Your task to perform on an android device: create a new album in the google photos Image 0: 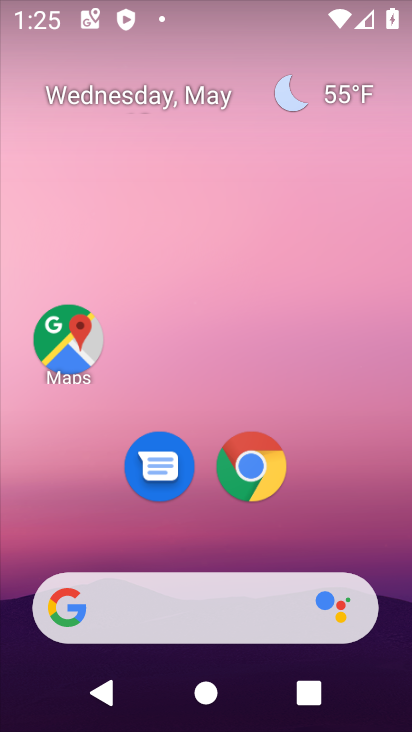
Step 0: drag from (304, 545) to (240, 5)
Your task to perform on an android device: create a new album in the google photos Image 1: 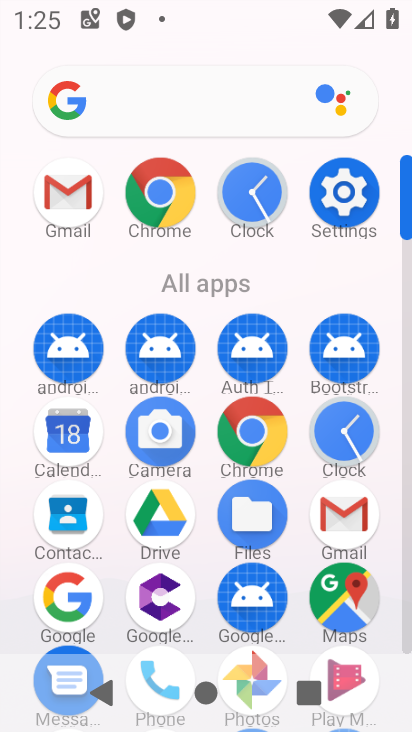
Step 1: drag from (283, 575) to (369, 299)
Your task to perform on an android device: create a new album in the google photos Image 2: 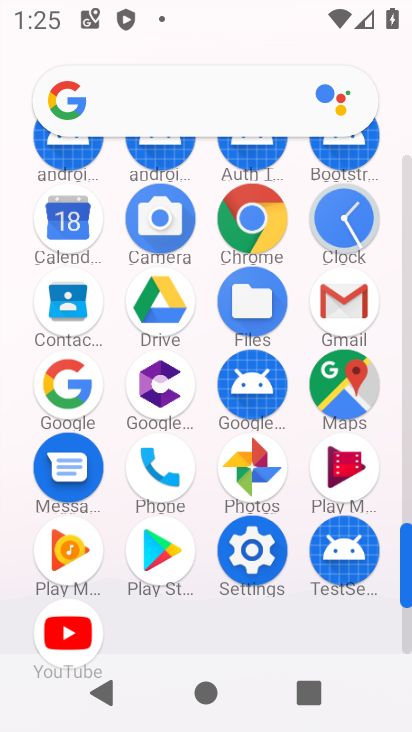
Step 2: click (251, 473)
Your task to perform on an android device: create a new album in the google photos Image 3: 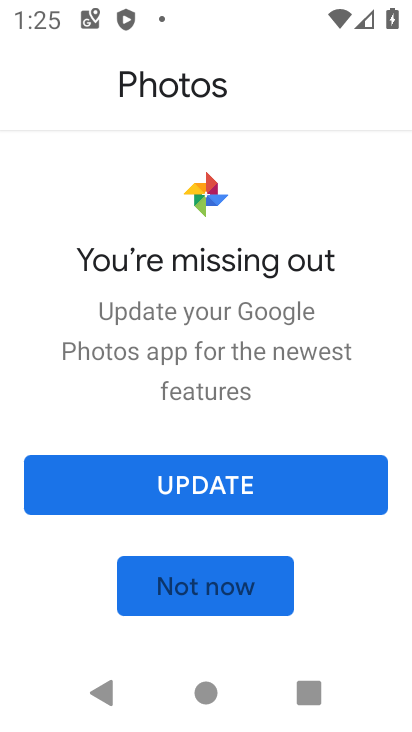
Step 3: click (230, 485)
Your task to perform on an android device: create a new album in the google photos Image 4: 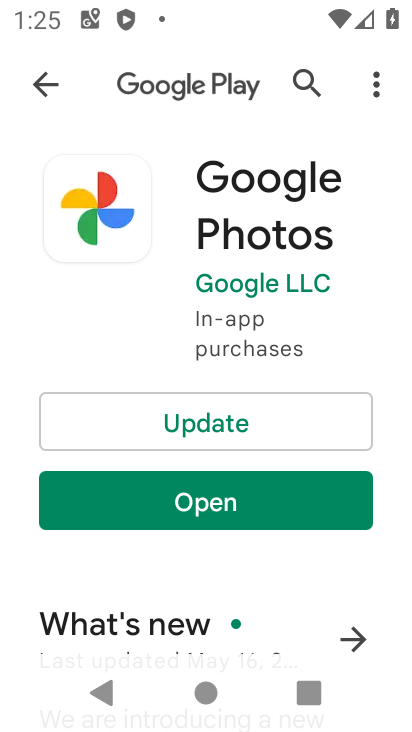
Step 4: click (235, 421)
Your task to perform on an android device: create a new album in the google photos Image 5: 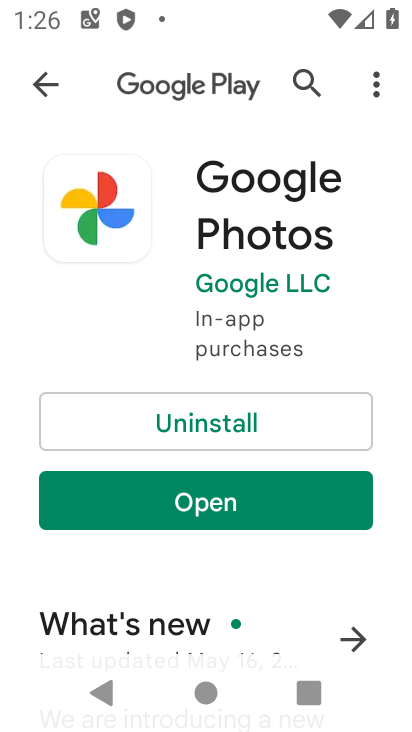
Step 5: click (321, 493)
Your task to perform on an android device: create a new album in the google photos Image 6: 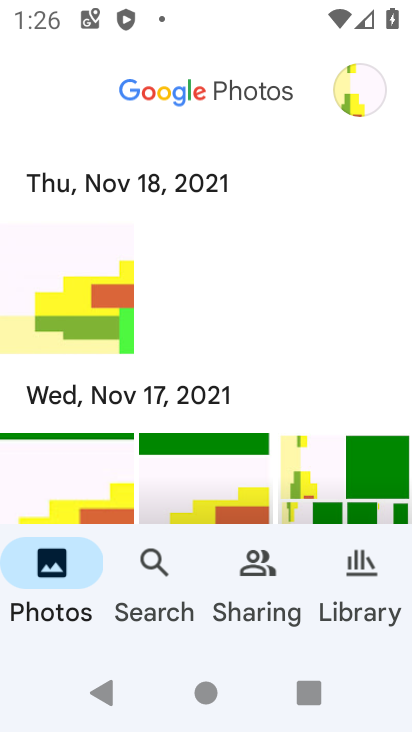
Step 6: click (339, 573)
Your task to perform on an android device: create a new album in the google photos Image 7: 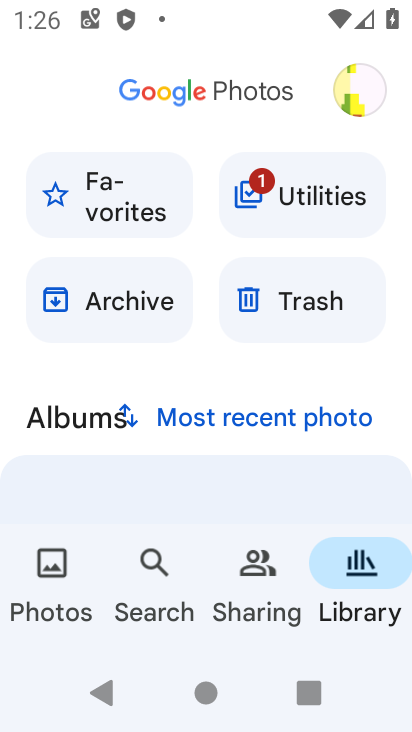
Step 7: drag from (150, 392) to (172, 42)
Your task to perform on an android device: create a new album in the google photos Image 8: 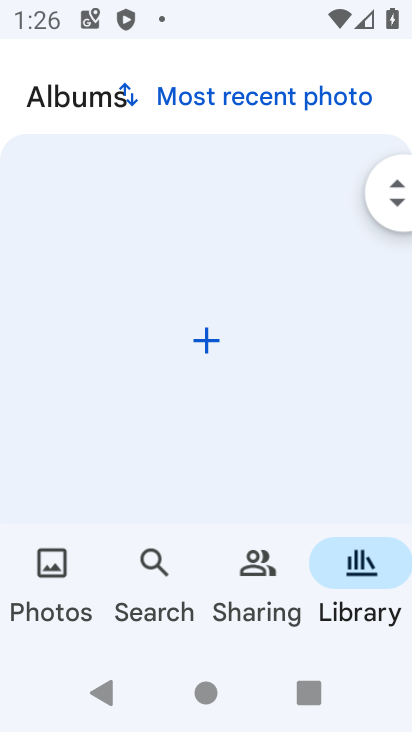
Step 8: click (206, 339)
Your task to perform on an android device: create a new album in the google photos Image 9: 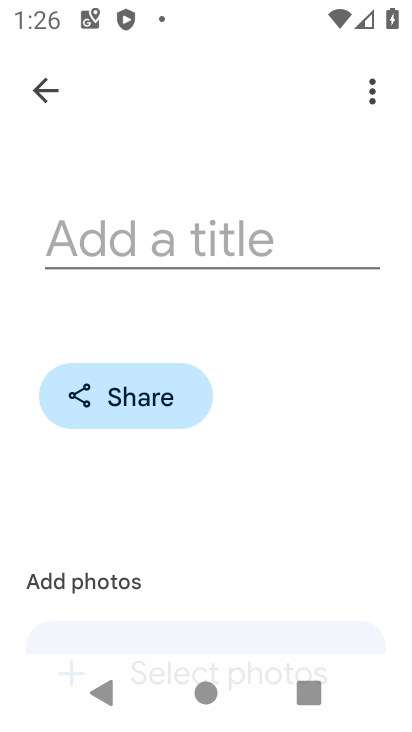
Step 9: click (143, 255)
Your task to perform on an android device: create a new album in the google photos Image 10: 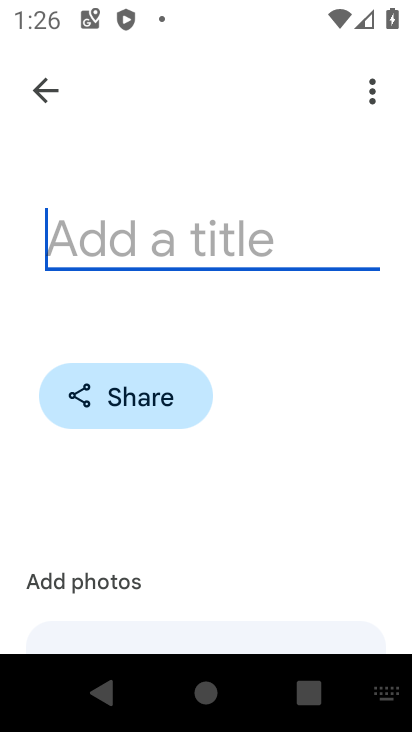
Step 10: type "drfcgyhbjikmlp"
Your task to perform on an android device: create a new album in the google photos Image 11: 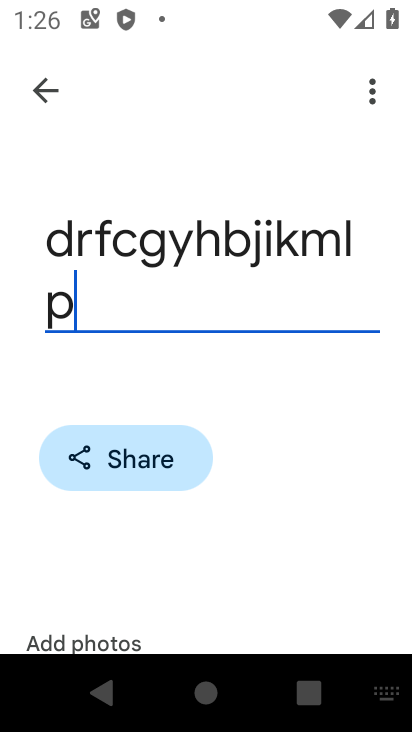
Step 11: drag from (342, 540) to (284, 109)
Your task to perform on an android device: create a new album in the google photos Image 12: 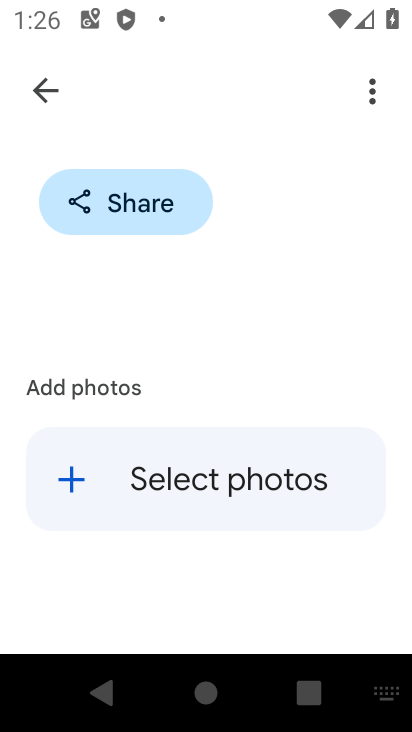
Step 12: click (66, 477)
Your task to perform on an android device: create a new album in the google photos Image 13: 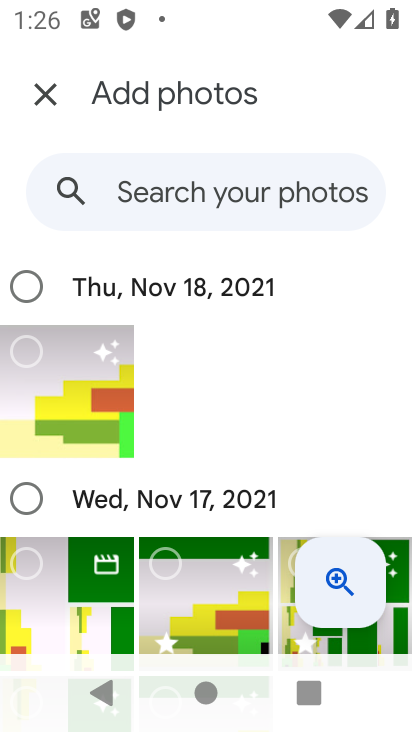
Step 13: click (60, 425)
Your task to perform on an android device: create a new album in the google photos Image 14: 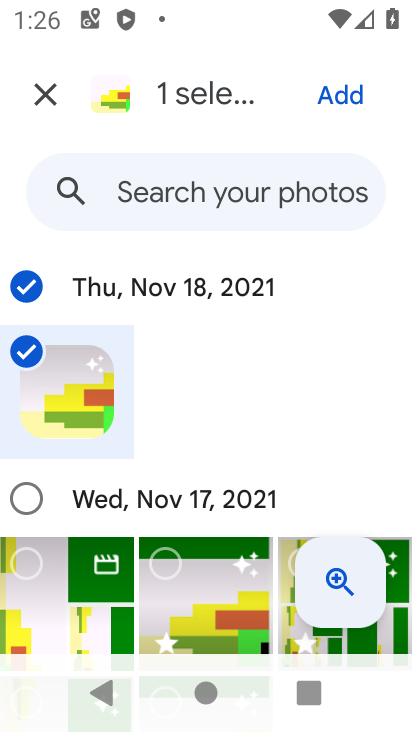
Step 14: click (338, 86)
Your task to perform on an android device: create a new album in the google photos Image 15: 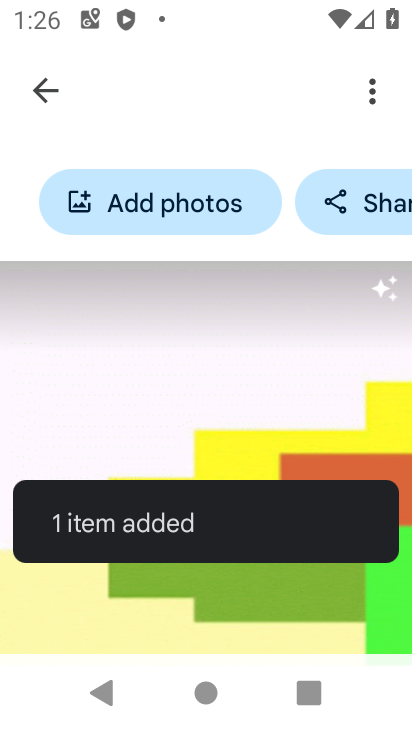
Step 15: task complete